Your task to perform on an android device: open a bookmark in the chrome app Image 0: 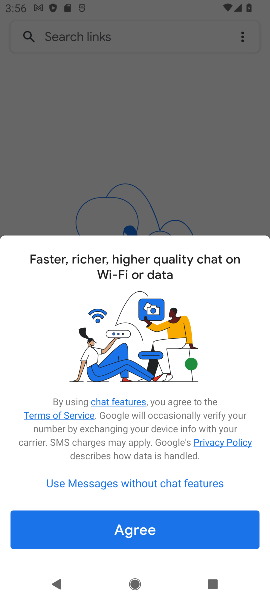
Step 0: press home button
Your task to perform on an android device: open a bookmark in the chrome app Image 1: 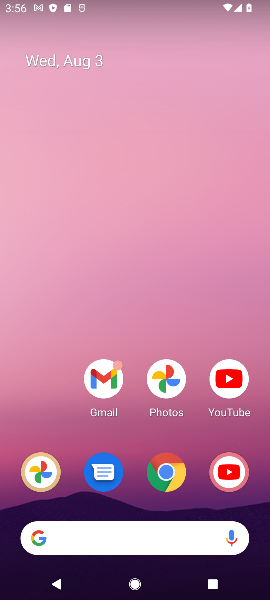
Step 1: drag from (133, 421) to (28, 14)
Your task to perform on an android device: open a bookmark in the chrome app Image 2: 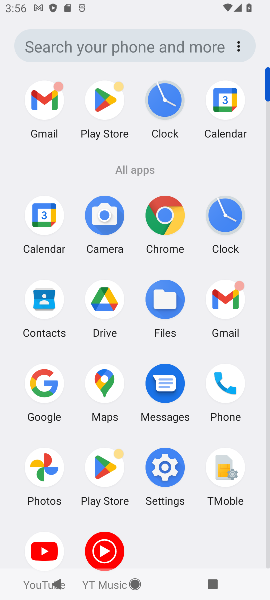
Step 2: click (169, 210)
Your task to perform on an android device: open a bookmark in the chrome app Image 3: 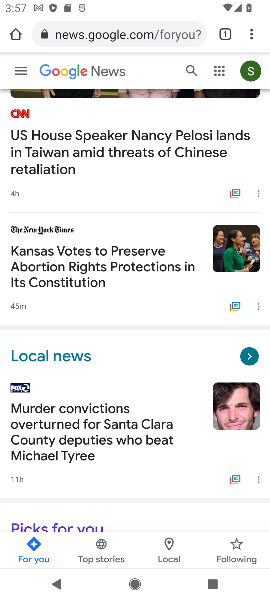
Step 3: click (172, 29)
Your task to perform on an android device: open a bookmark in the chrome app Image 4: 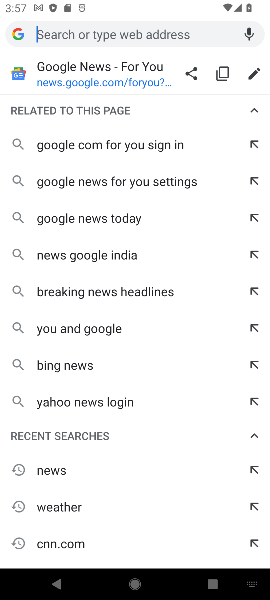
Step 4: press back button
Your task to perform on an android device: open a bookmark in the chrome app Image 5: 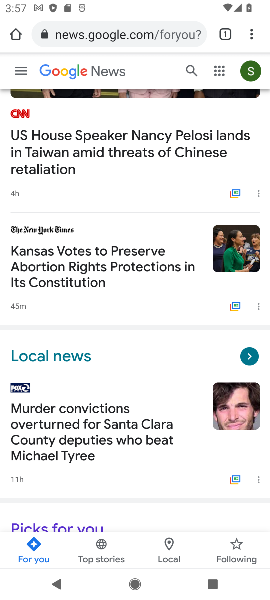
Step 5: drag from (250, 33) to (160, 197)
Your task to perform on an android device: open a bookmark in the chrome app Image 6: 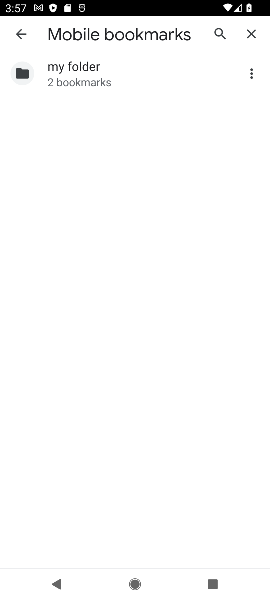
Step 6: click (133, 75)
Your task to perform on an android device: open a bookmark in the chrome app Image 7: 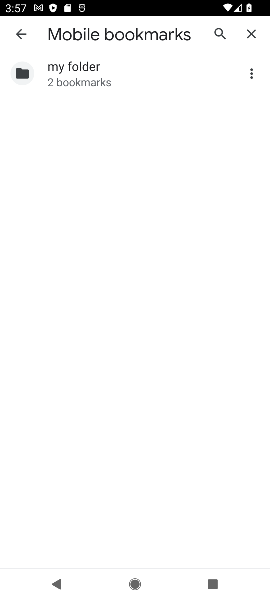
Step 7: click (133, 75)
Your task to perform on an android device: open a bookmark in the chrome app Image 8: 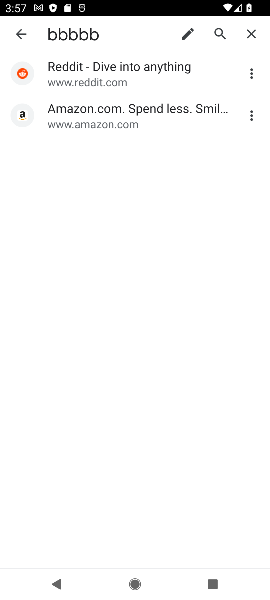
Step 8: click (132, 111)
Your task to perform on an android device: open a bookmark in the chrome app Image 9: 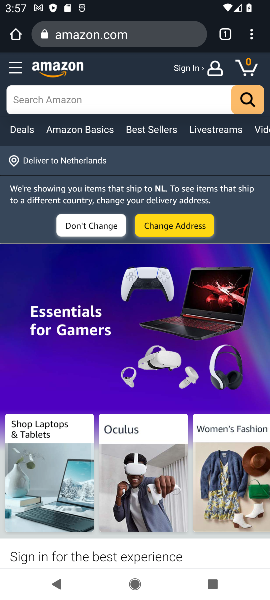
Step 9: task complete